Your task to perform on an android device: Open the web browser Image 0: 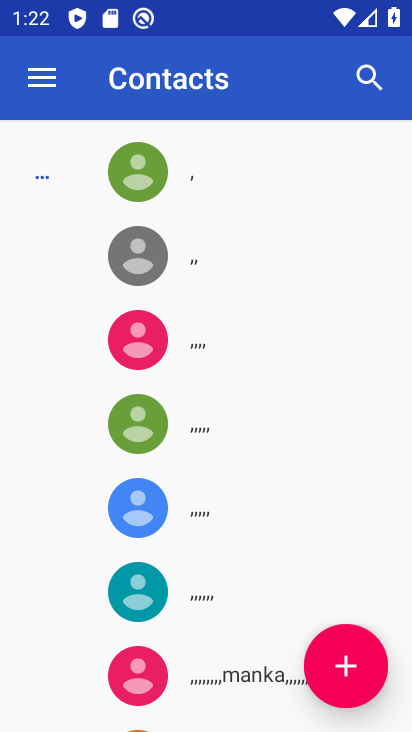
Step 0: drag from (313, 527) to (211, 107)
Your task to perform on an android device: Open the web browser Image 1: 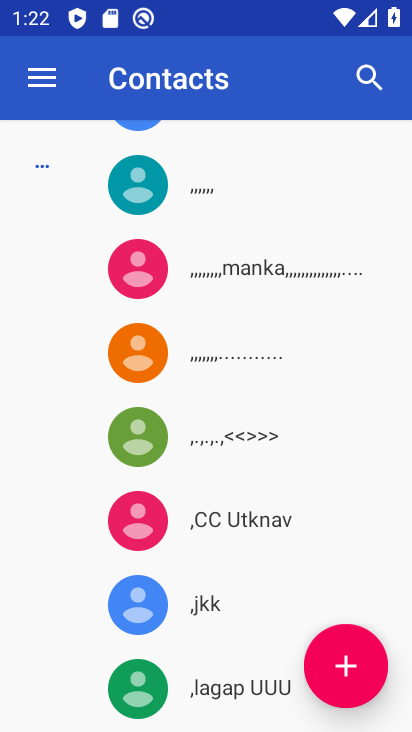
Step 1: press home button
Your task to perform on an android device: Open the web browser Image 2: 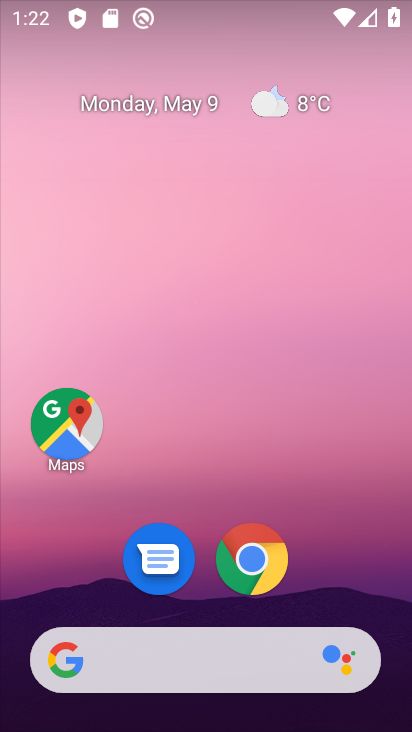
Step 2: click (255, 563)
Your task to perform on an android device: Open the web browser Image 3: 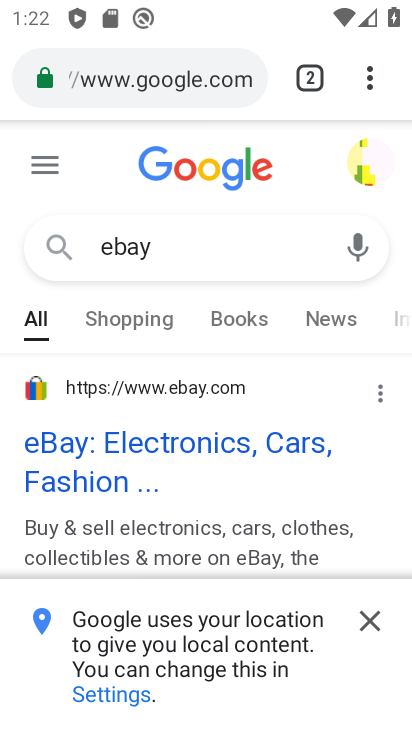
Step 3: task complete